Your task to perform on an android device: turn off location Image 0: 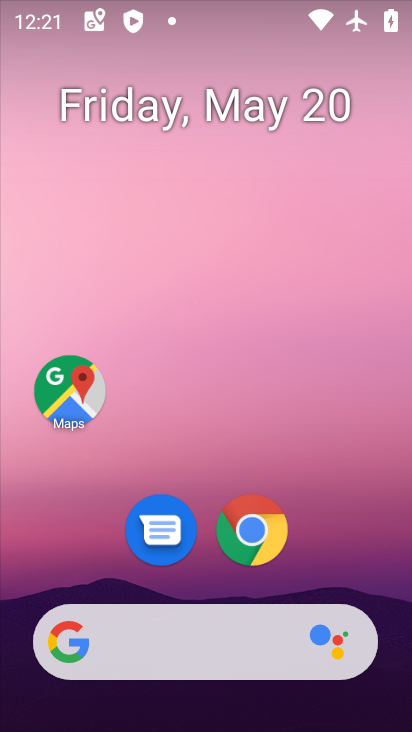
Step 0: drag from (253, 500) to (301, 175)
Your task to perform on an android device: turn off location Image 1: 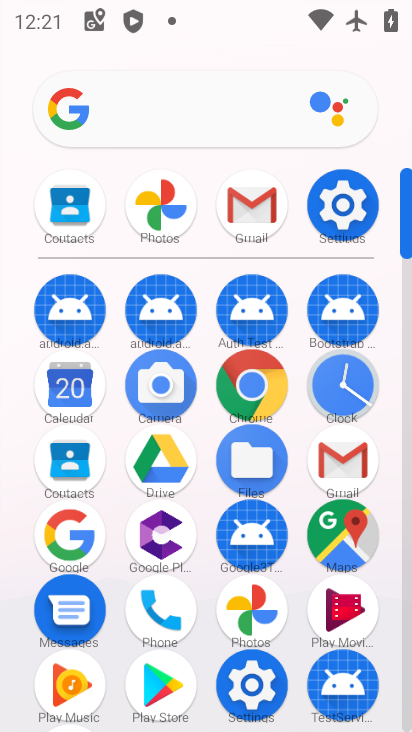
Step 1: click (355, 213)
Your task to perform on an android device: turn off location Image 2: 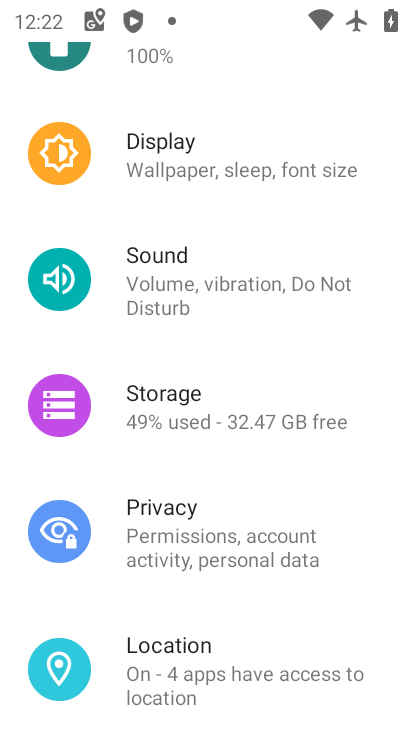
Step 2: click (245, 671)
Your task to perform on an android device: turn off location Image 3: 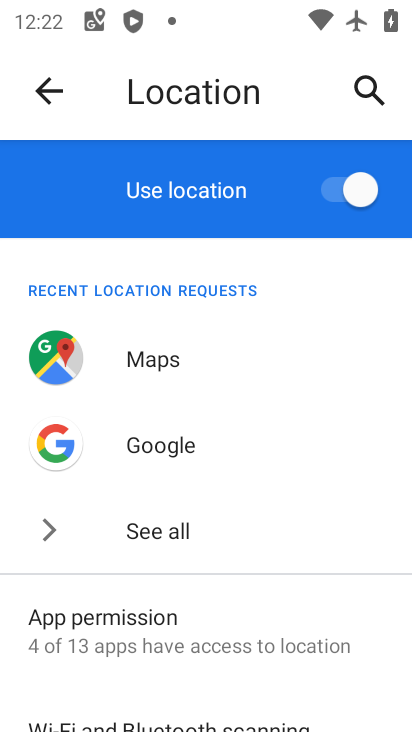
Step 3: click (373, 186)
Your task to perform on an android device: turn off location Image 4: 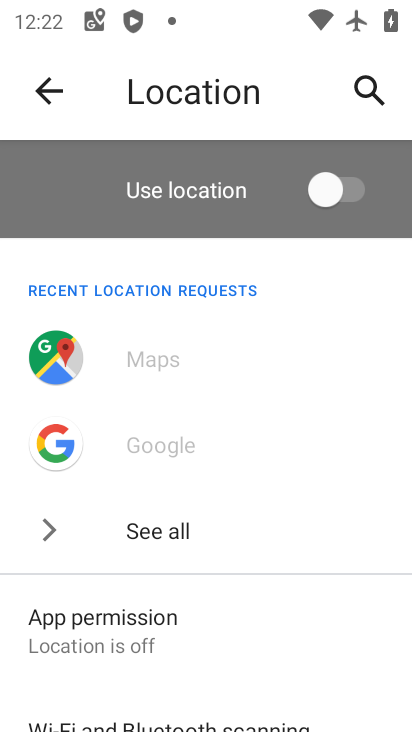
Step 4: task complete